Your task to perform on an android device: clear all cookies in the chrome app Image 0: 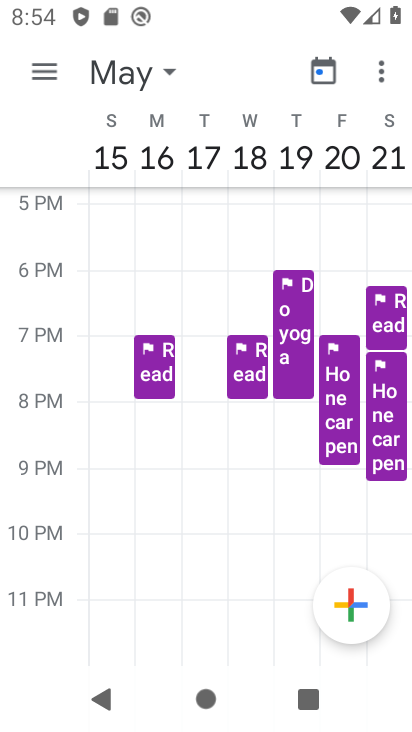
Step 0: press home button
Your task to perform on an android device: clear all cookies in the chrome app Image 1: 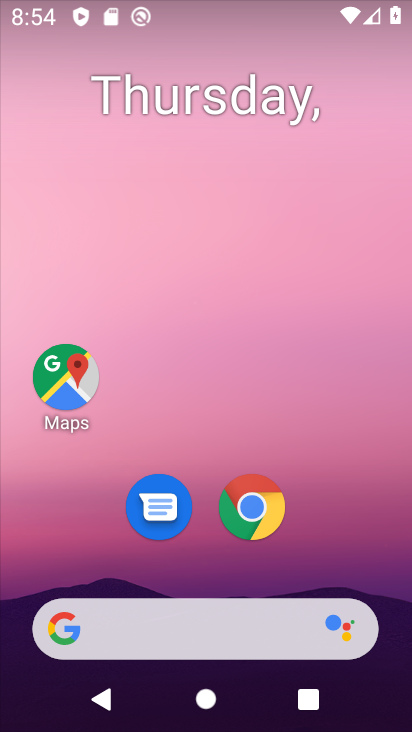
Step 1: drag from (279, 572) to (269, 3)
Your task to perform on an android device: clear all cookies in the chrome app Image 2: 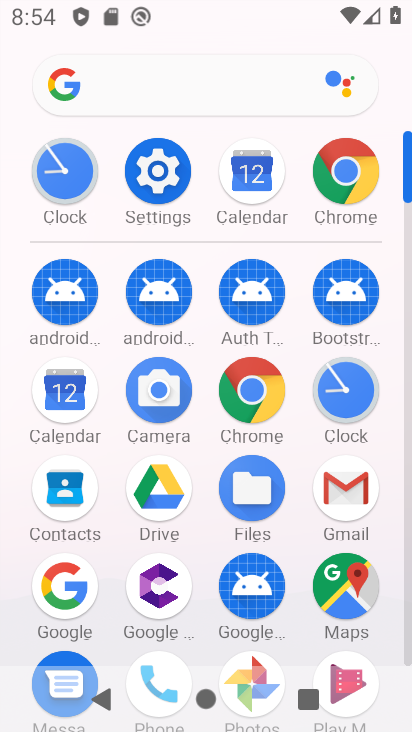
Step 2: click (231, 385)
Your task to perform on an android device: clear all cookies in the chrome app Image 3: 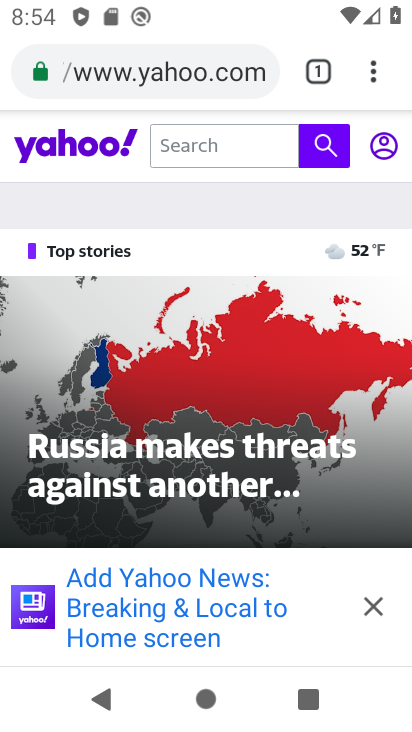
Step 3: drag from (213, 496) to (369, 609)
Your task to perform on an android device: clear all cookies in the chrome app Image 4: 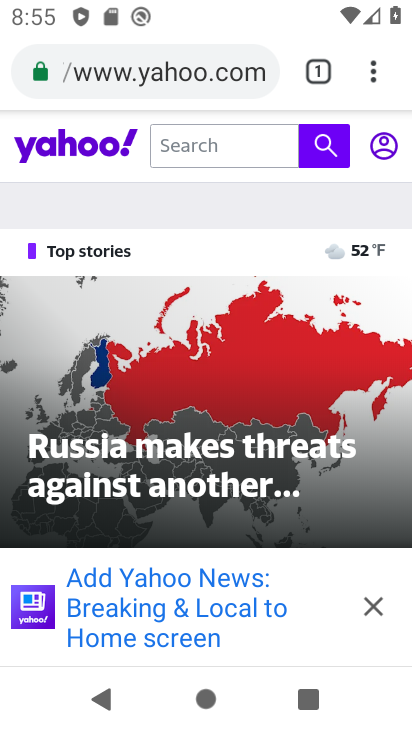
Step 4: click (373, 87)
Your task to perform on an android device: clear all cookies in the chrome app Image 5: 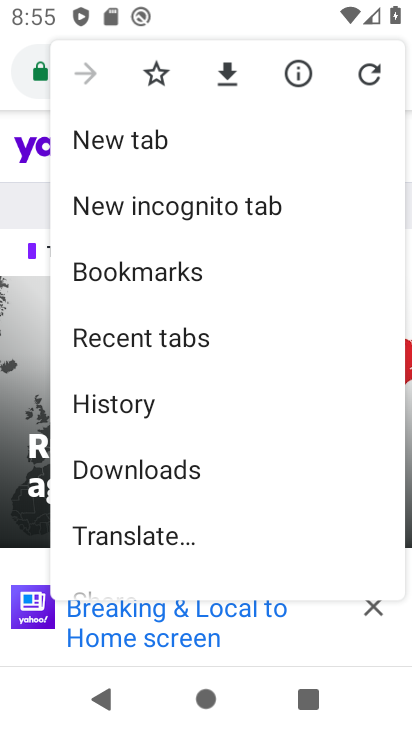
Step 5: click (164, 276)
Your task to perform on an android device: clear all cookies in the chrome app Image 6: 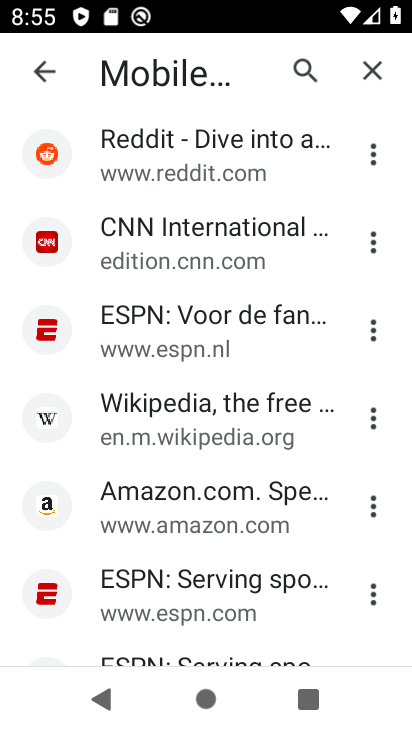
Step 6: click (370, 72)
Your task to perform on an android device: clear all cookies in the chrome app Image 7: 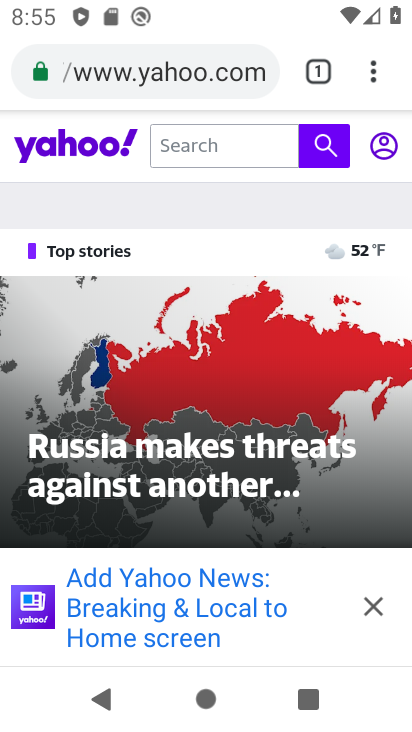
Step 7: click (382, 74)
Your task to perform on an android device: clear all cookies in the chrome app Image 8: 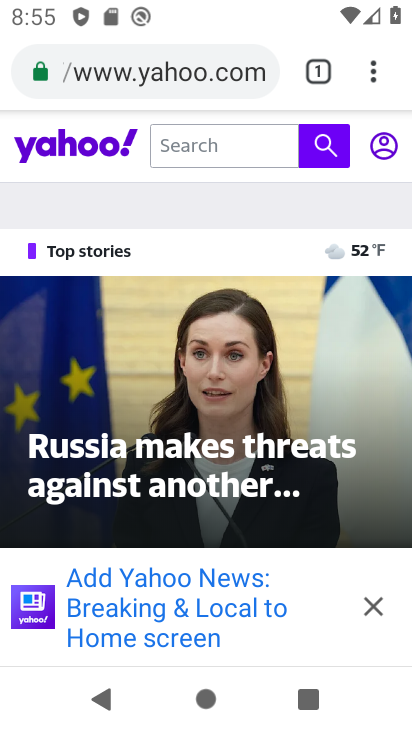
Step 8: click (369, 79)
Your task to perform on an android device: clear all cookies in the chrome app Image 9: 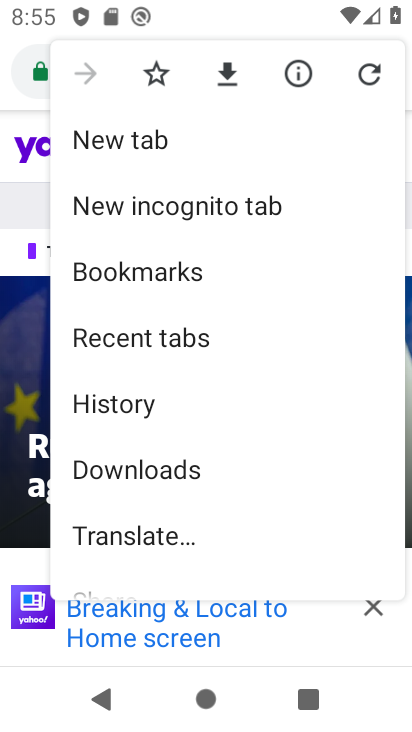
Step 9: click (142, 415)
Your task to perform on an android device: clear all cookies in the chrome app Image 10: 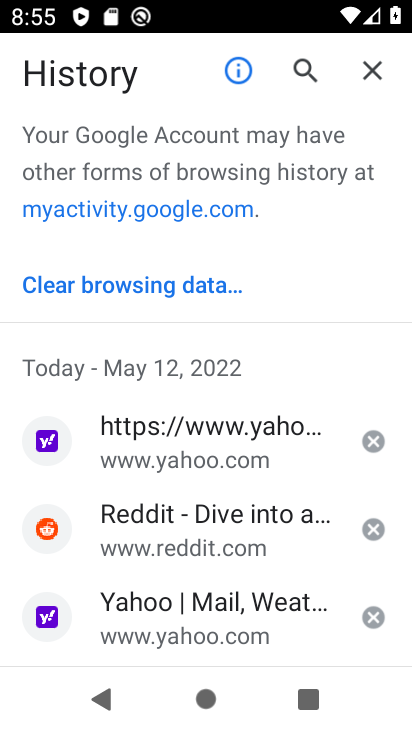
Step 10: click (169, 275)
Your task to perform on an android device: clear all cookies in the chrome app Image 11: 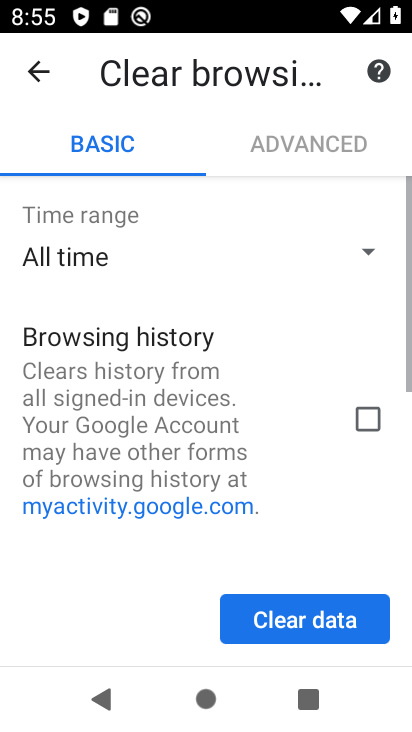
Step 11: drag from (266, 491) to (306, 150)
Your task to perform on an android device: clear all cookies in the chrome app Image 12: 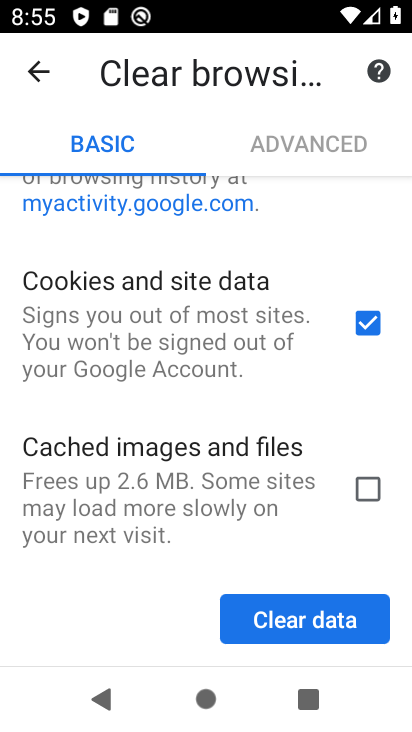
Step 12: click (270, 631)
Your task to perform on an android device: clear all cookies in the chrome app Image 13: 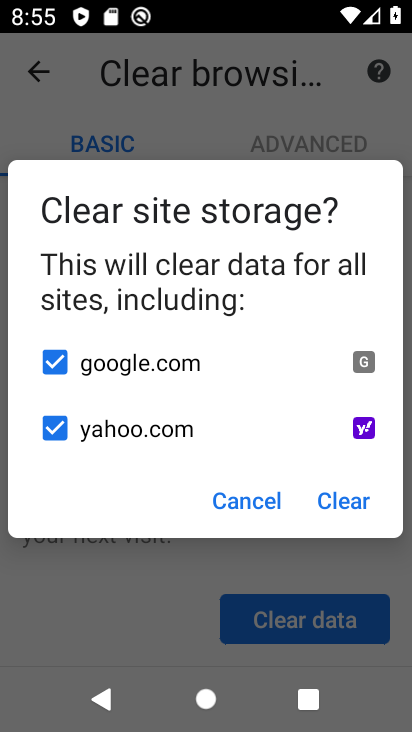
Step 13: click (362, 501)
Your task to perform on an android device: clear all cookies in the chrome app Image 14: 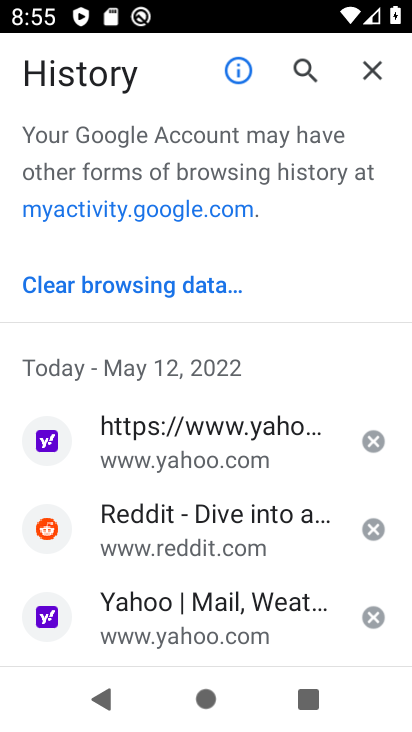
Step 14: task complete